Your task to perform on an android device: open app "Chime – Mobile Banking" Image 0: 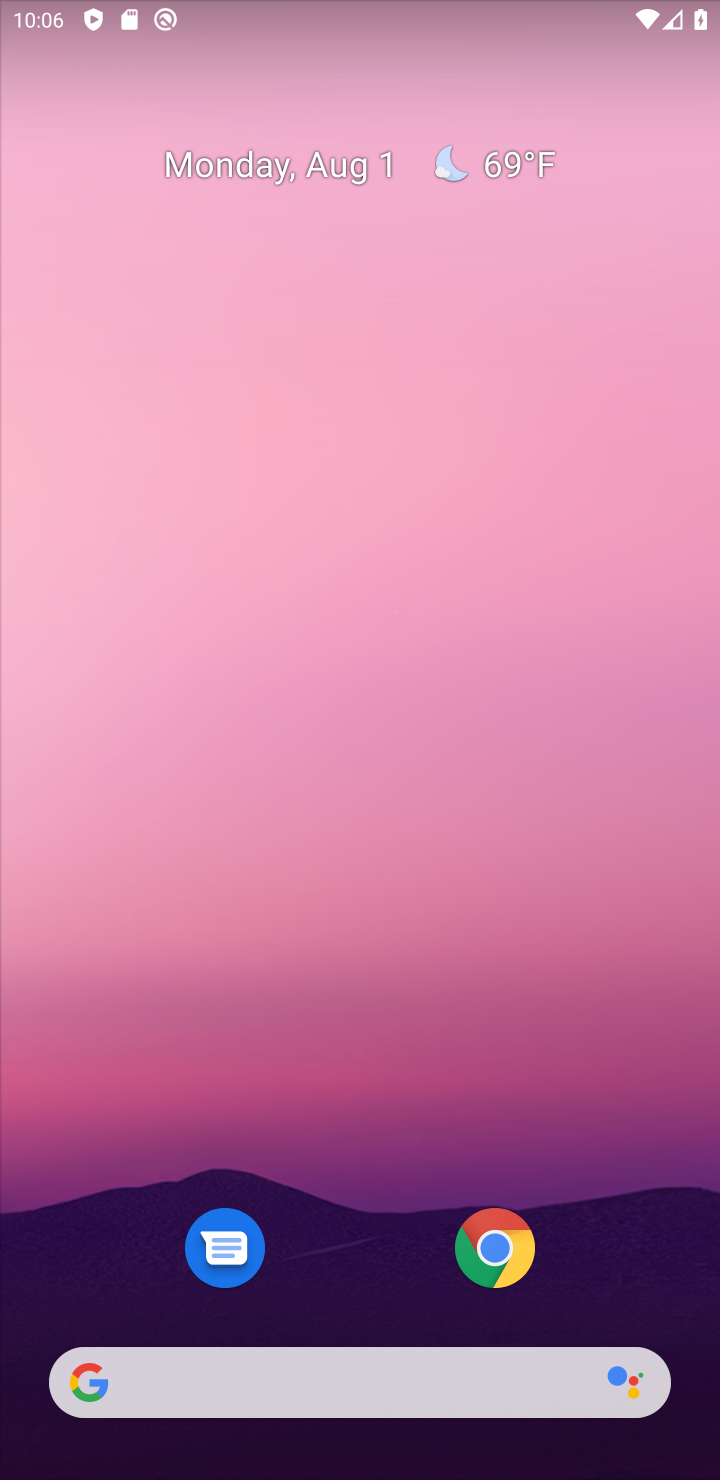
Step 0: press home button
Your task to perform on an android device: open app "Chime – Mobile Banking" Image 1: 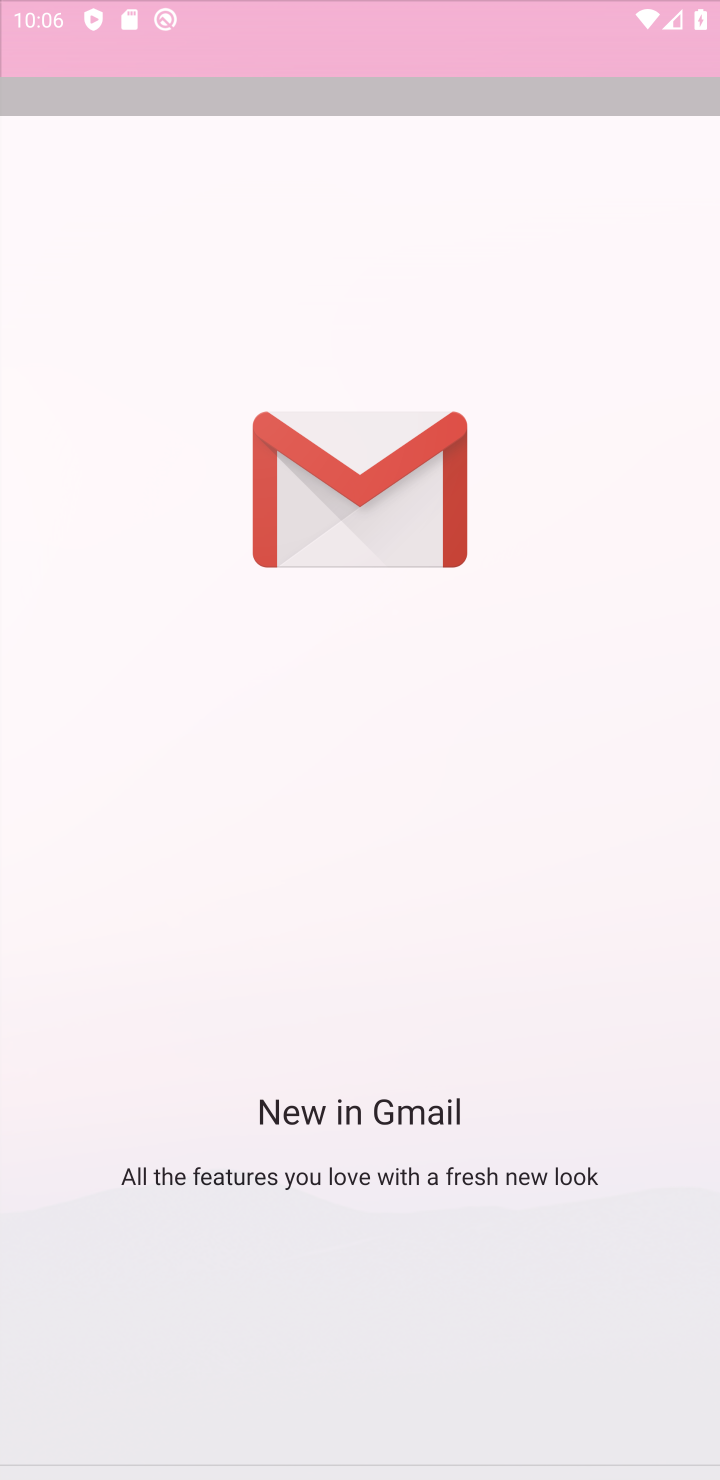
Step 1: click (365, 31)
Your task to perform on an android device: open app "Chime – Mobile Banking" Image 2: 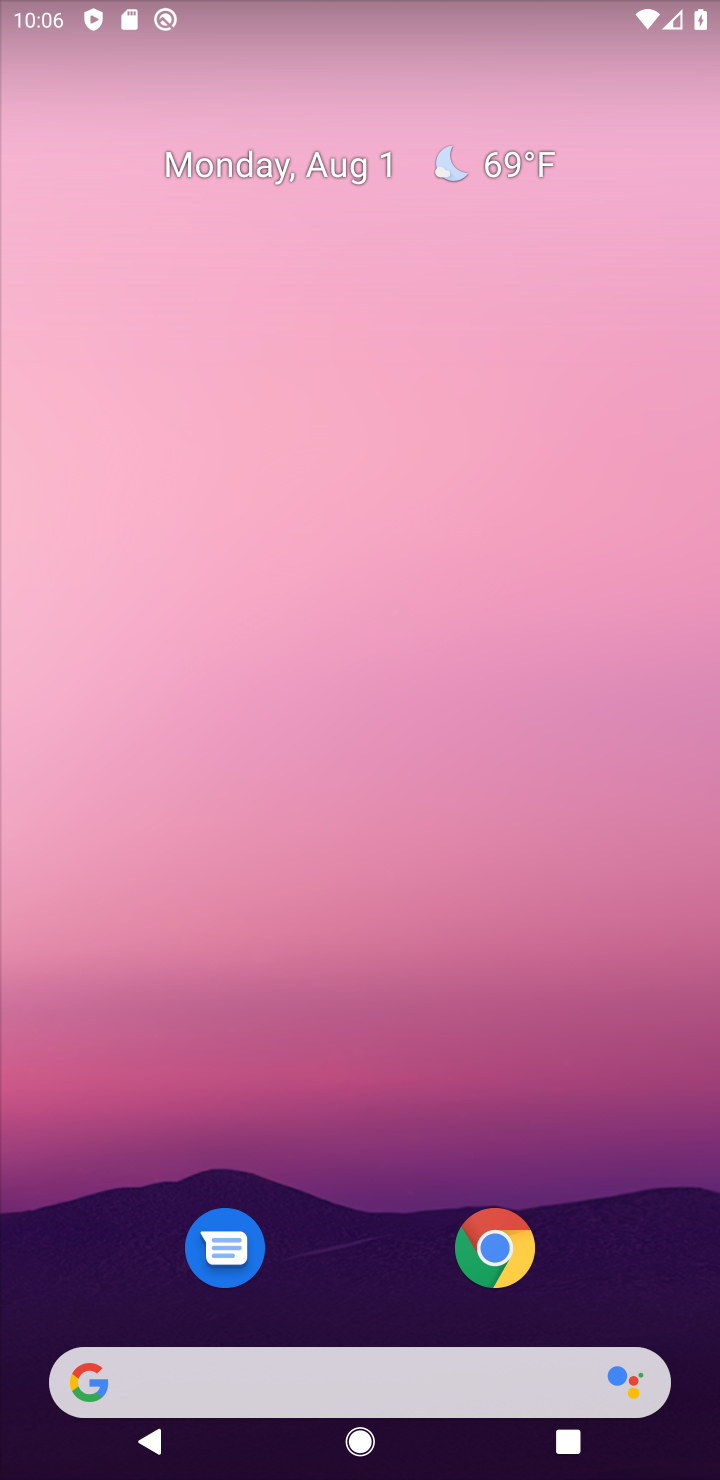
Step 2: drag from (341, 1261) to (504, 193)
Your task to perform on an android device: open app "Chime – Mobile Banking" Image 3: 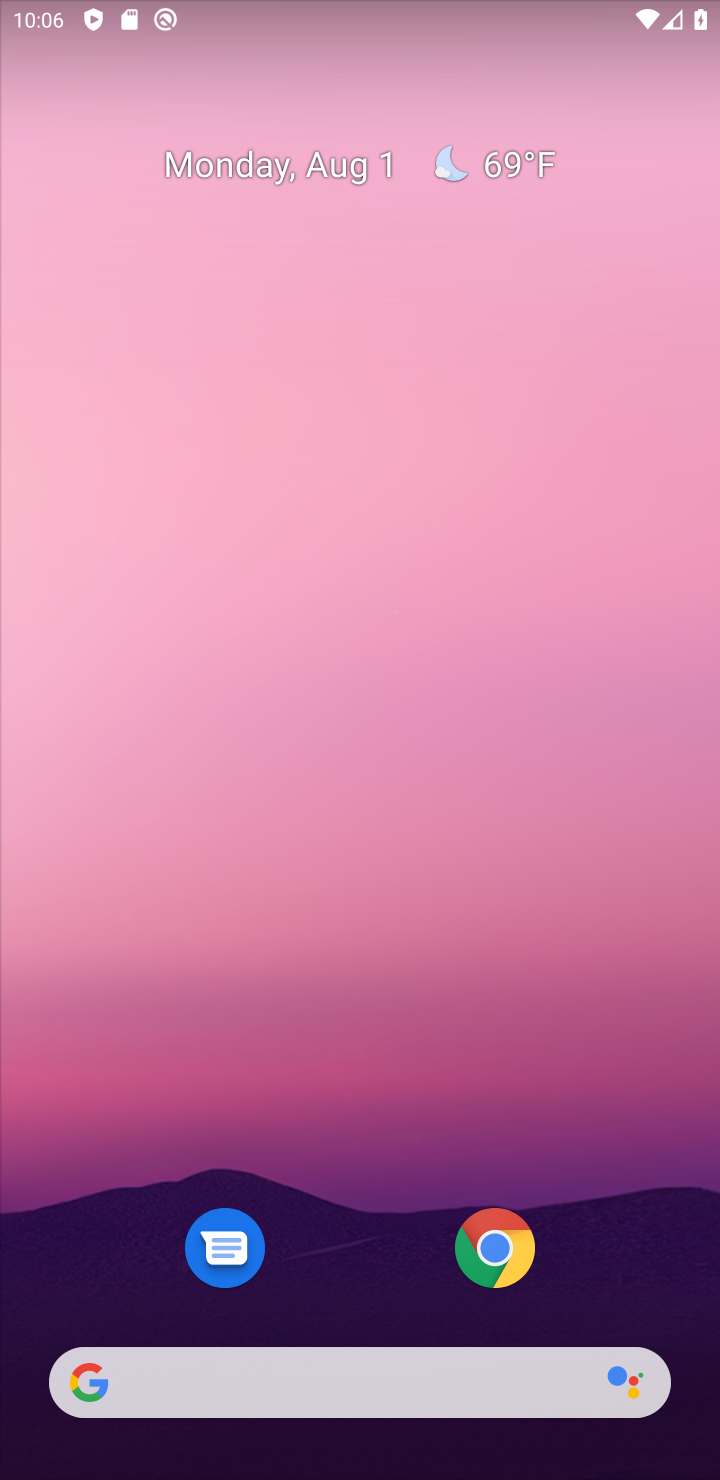
Step 3: drag from (352, 1046) to (426, 80)
Your task to perform on an android device: open app "Chime – Mobile Banking" Image 4: 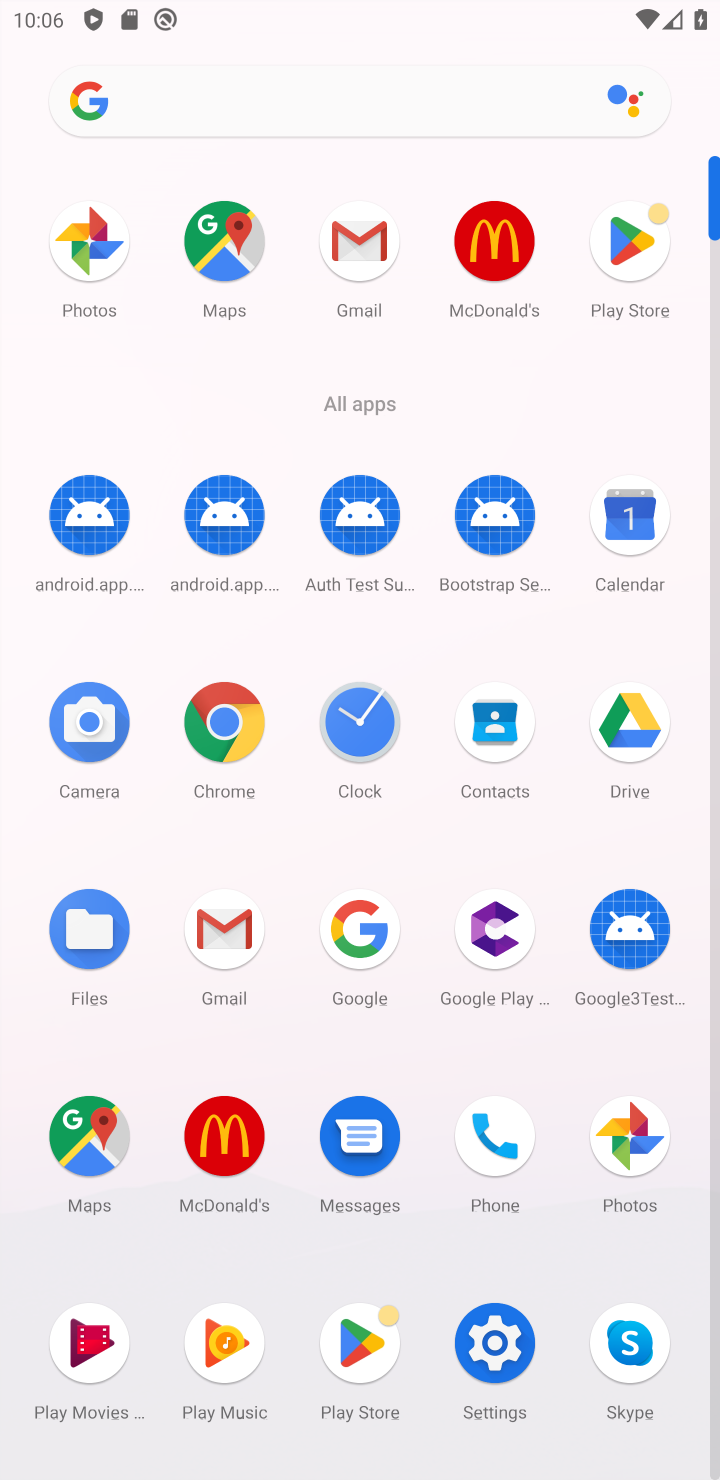
Step 4: click (646, 219)
Your task to perform on an android device: open app "Chime – Mobile Banking" Image 5: 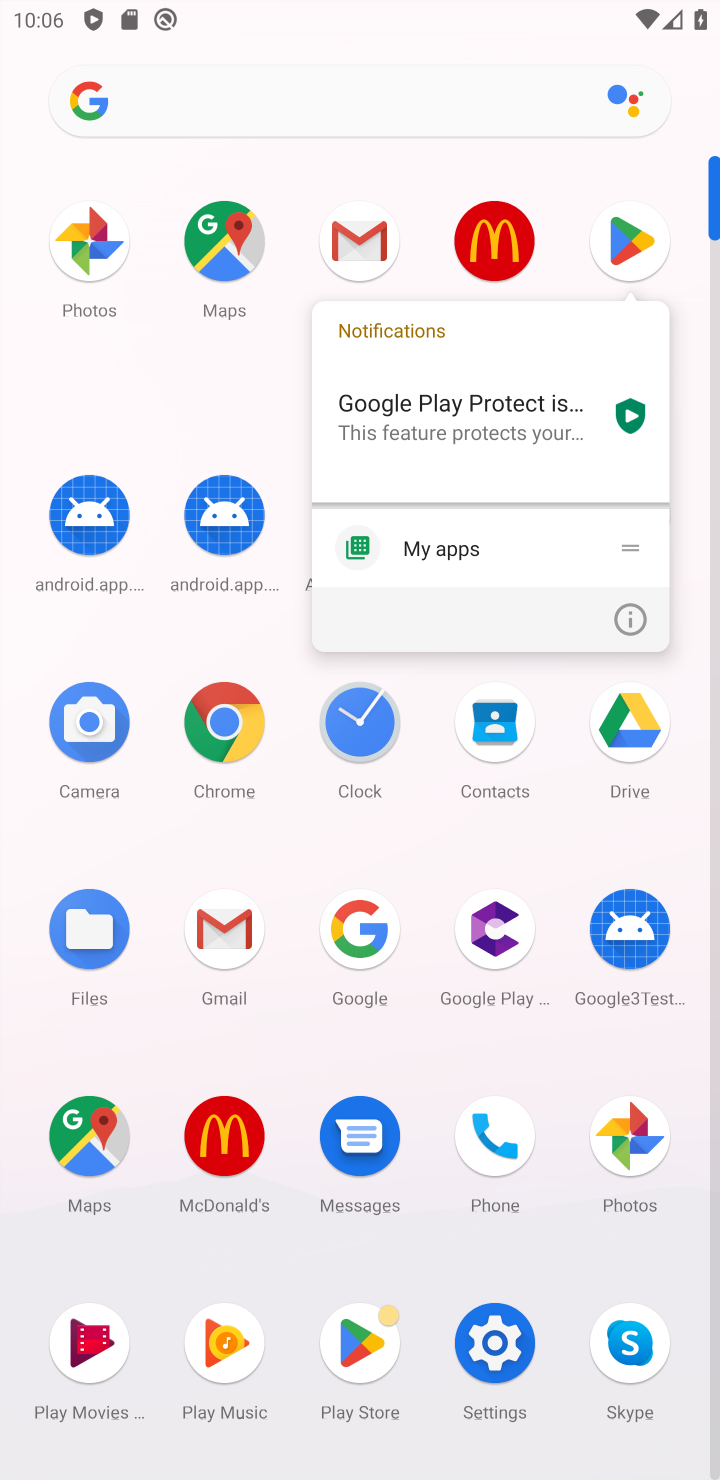
Step 5: click (351, 1334)
Your task to perform on an android device: open app "Chime – Mobile Banking" Image 6: 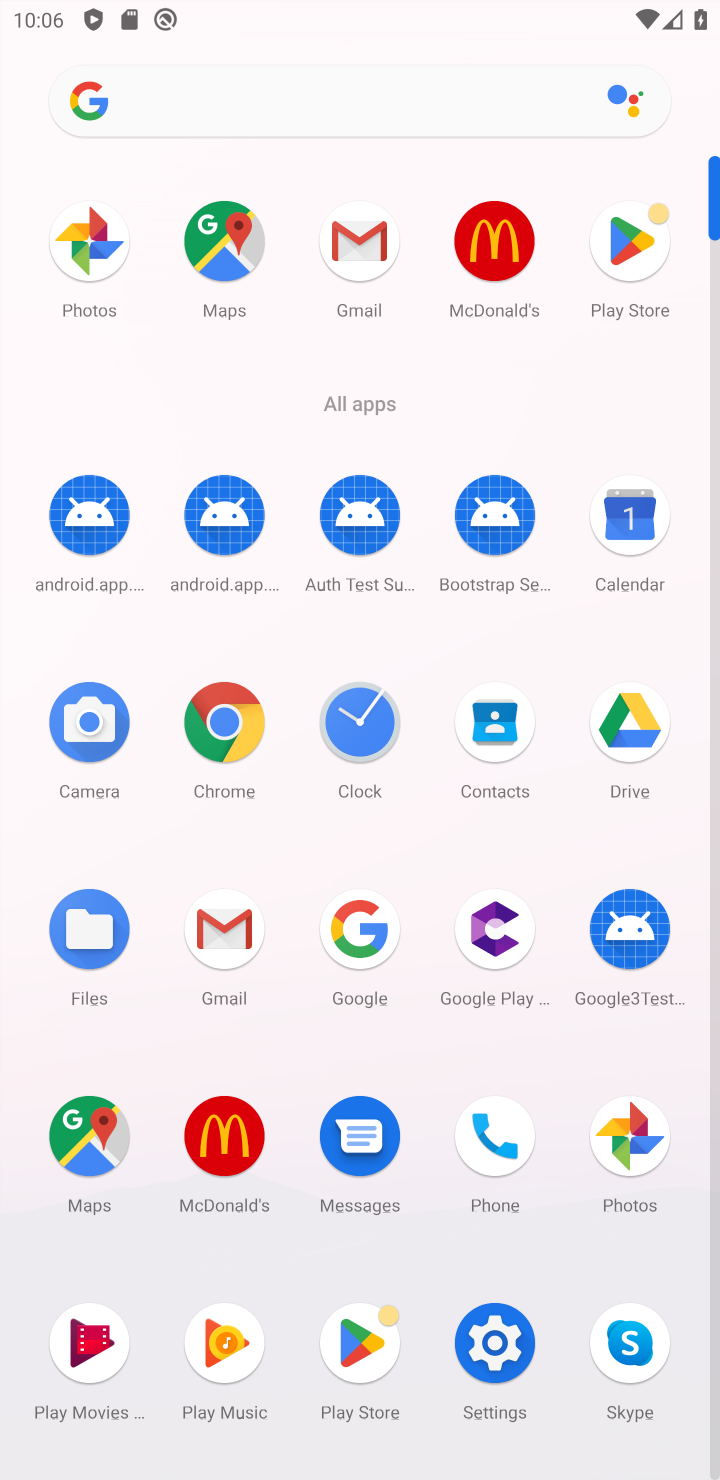
Step 6: click (351, 1334)
Your task to perform on an android device: open app "Chime – Mobile Banking" Image 7: 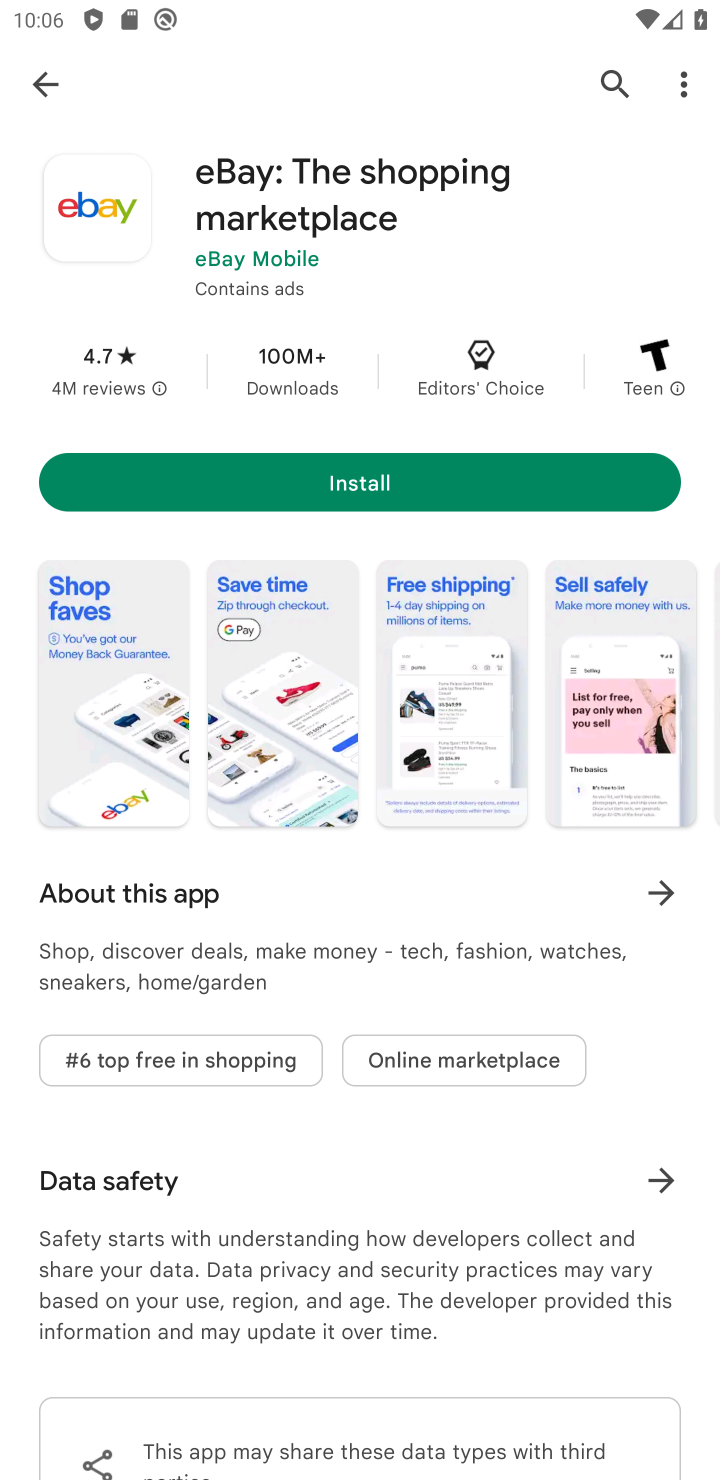
Step 7: click (618, 86)
Your task to perform on an android device: open app "Chime – Mobile Banking" Image 8: 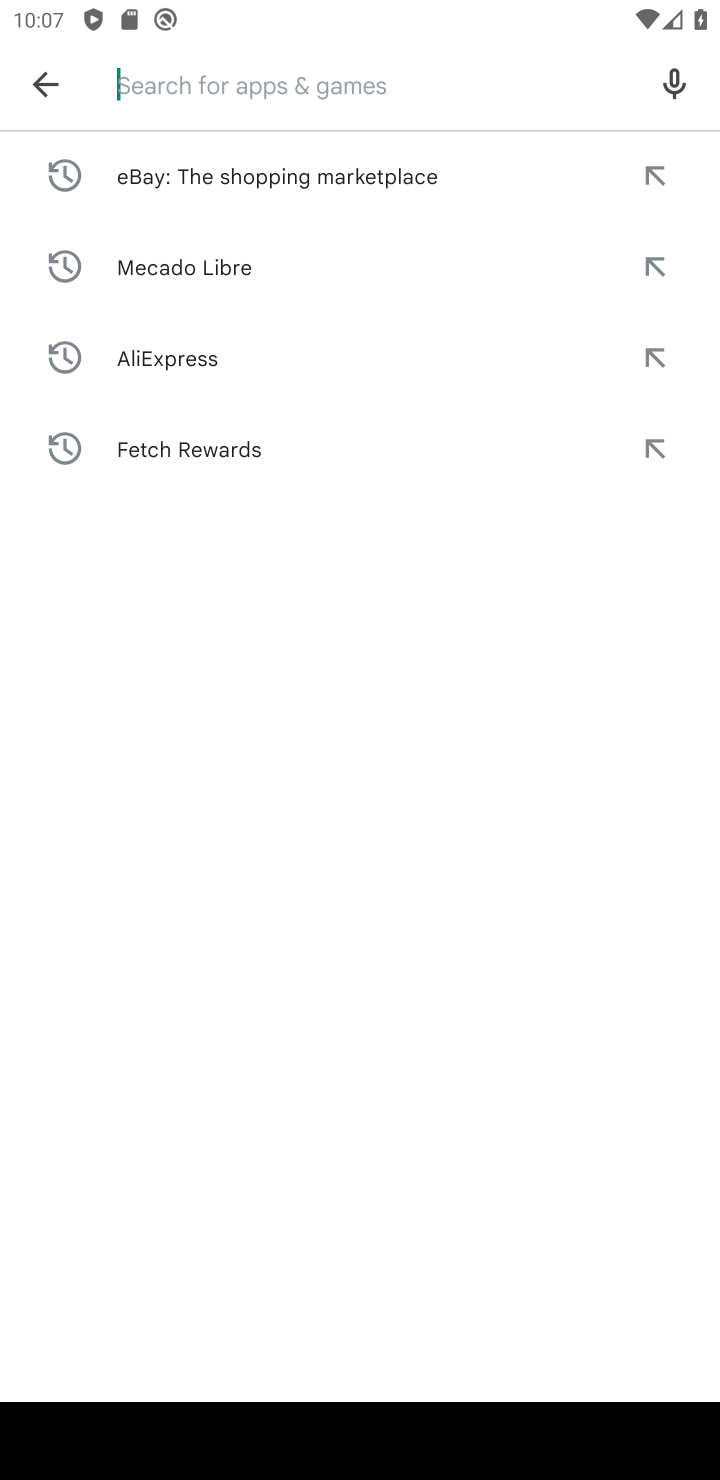
Step 8: type "Chime - Mobile Banking"
Your task to perform on an android device: open app "Chime – Mobile Banking" Image 9: 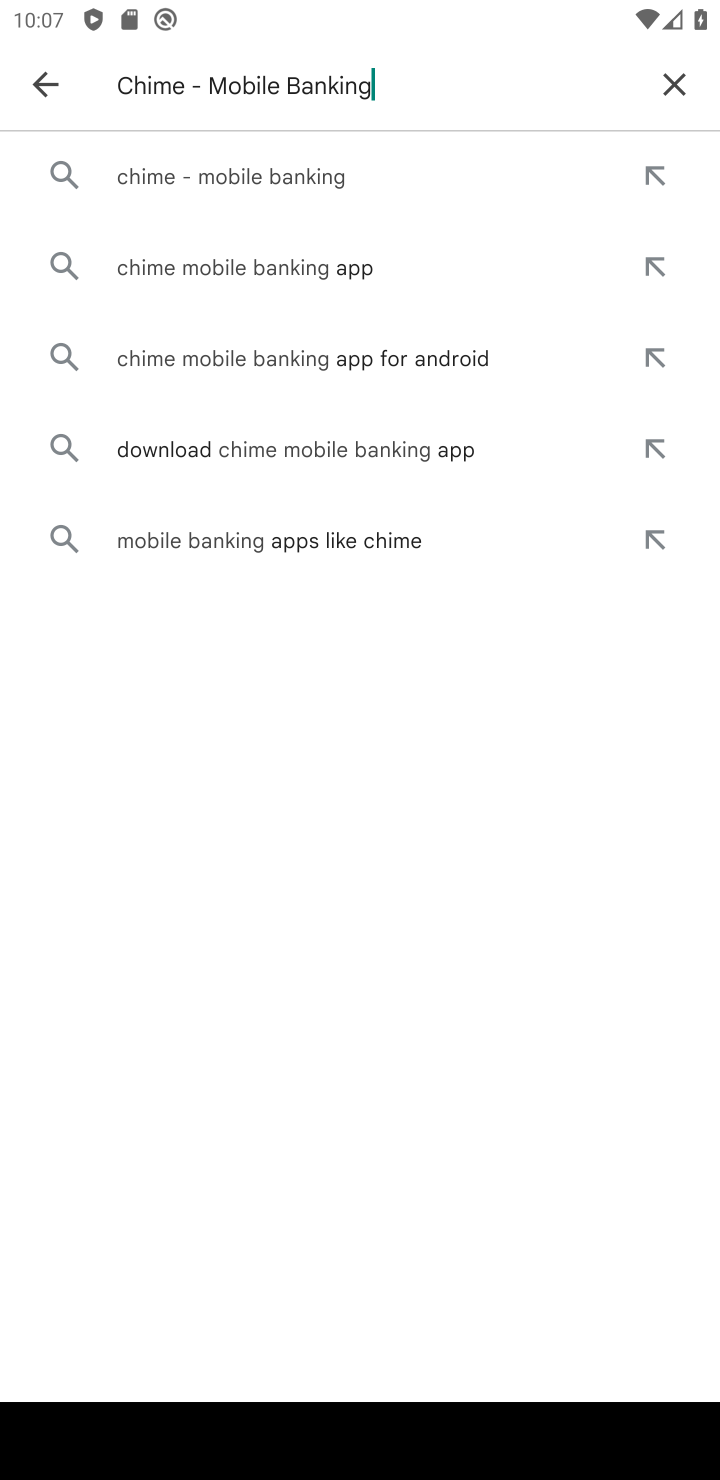
Step 9: press enter
Your task to perform on an android device: open app "Chime – Mobile Banking" Image 10: 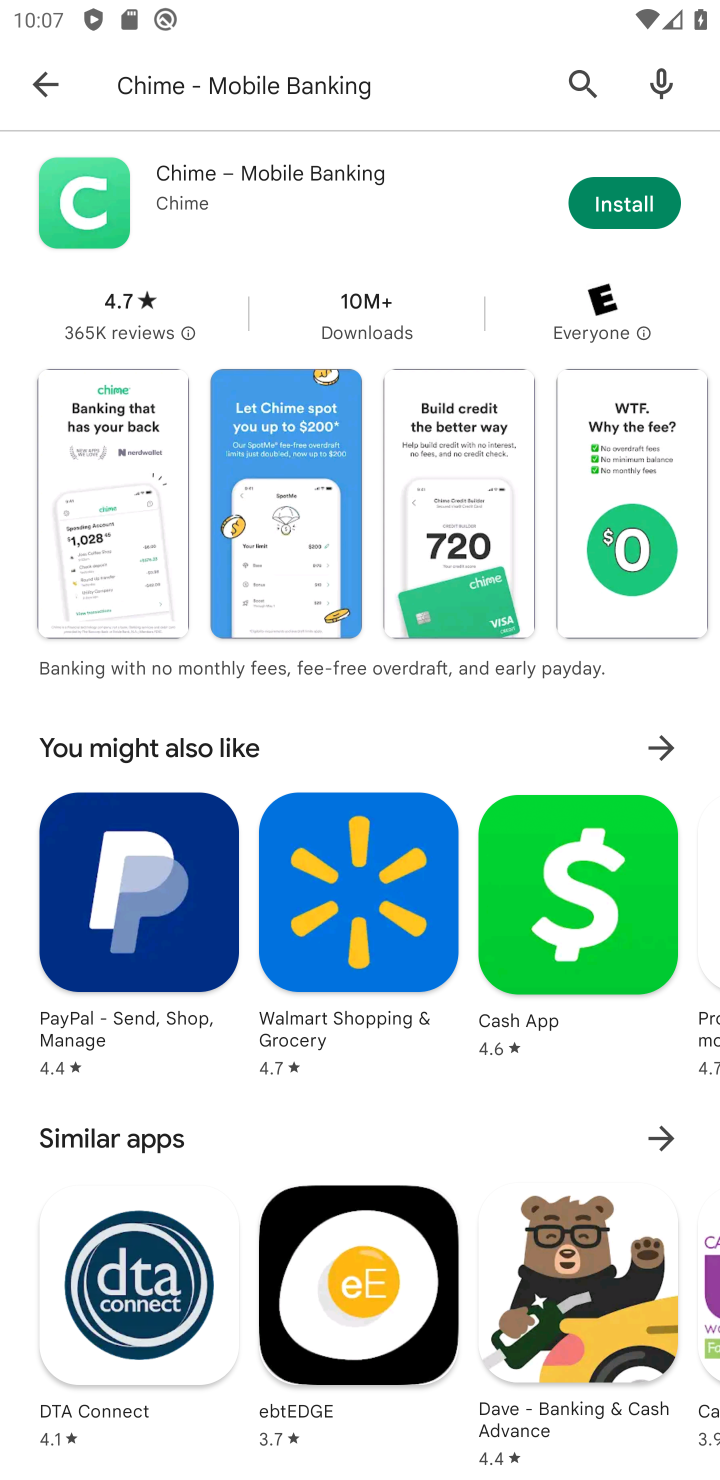
Step 10: click (355, 172)
Your task to perform on an android device: open app "Chime – Mobile Banking" Image 11: 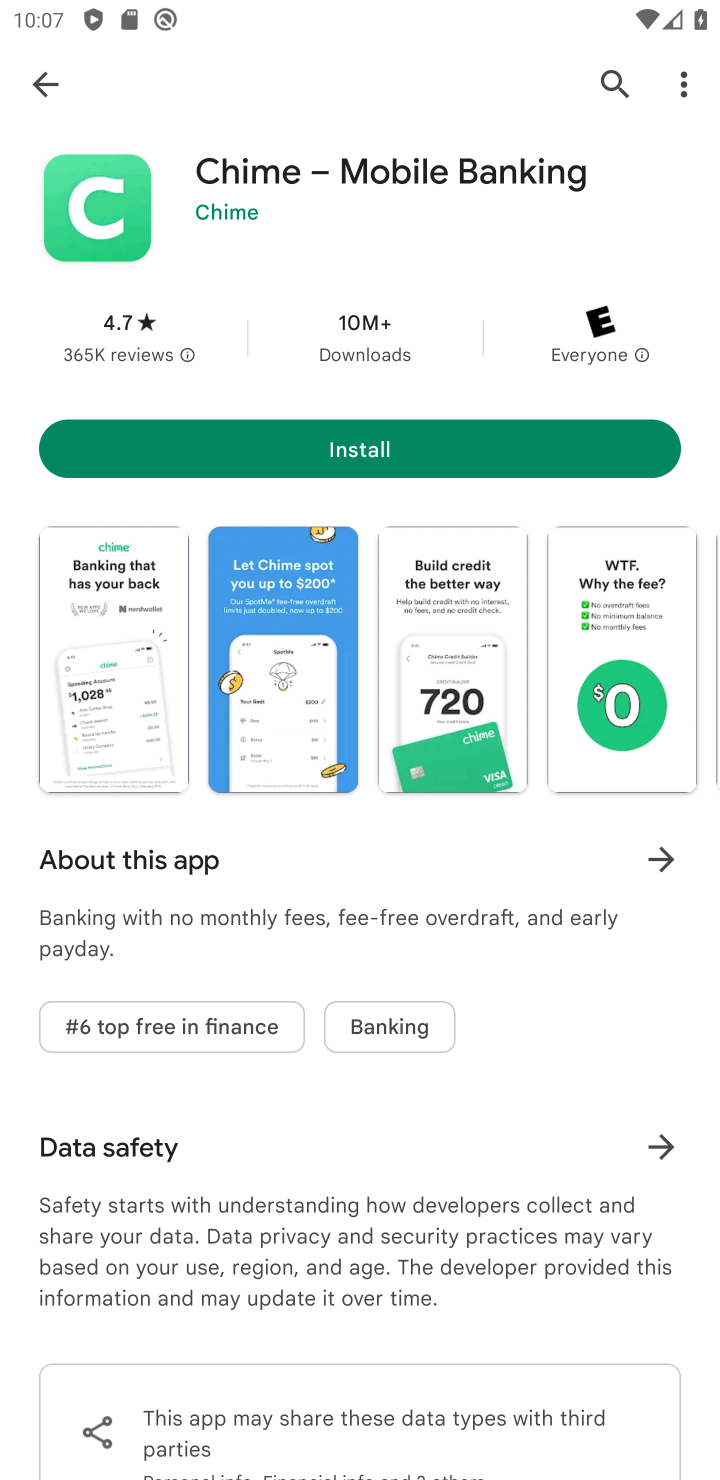
Step 11: task complete